Your task to perform on an android device: uninstall "Spotify: Music and Podcasts" Image 0: 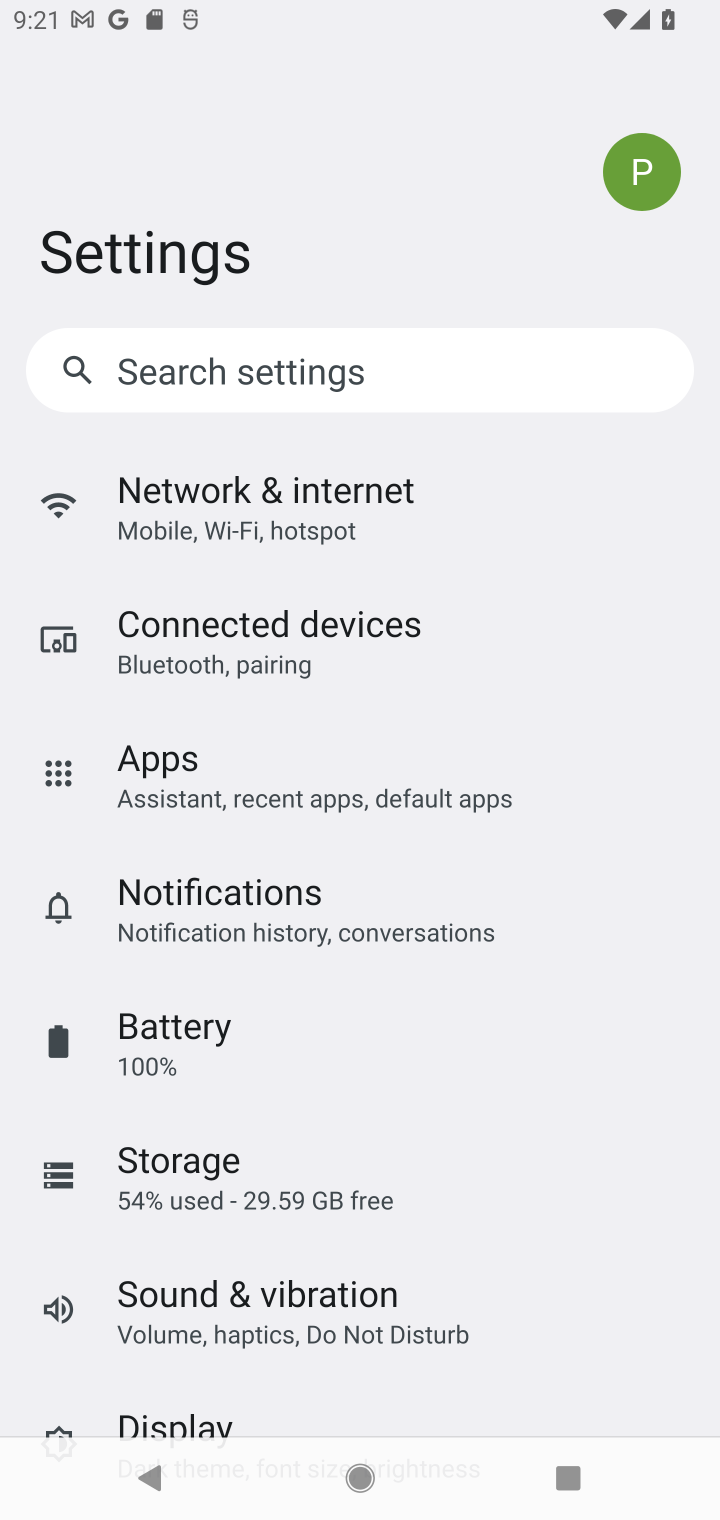
Step 0: press home button
Your task to perform on an android device: uninstall "Spotify: Music and Podcasts" Image 1: 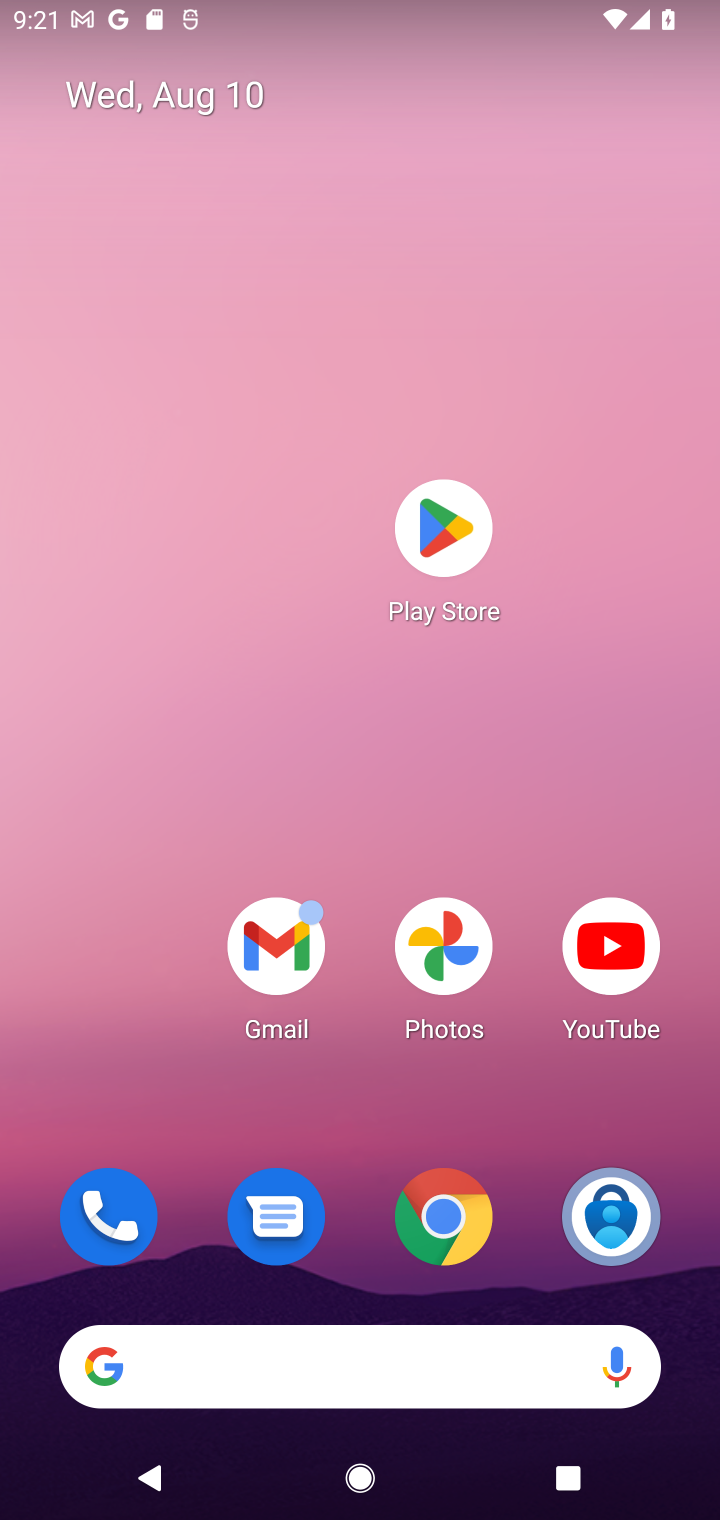
Step 1: click (437, 534)
Your task to perform on an android device: uninstall "Spotify: Music and Podcasts" Image 2: 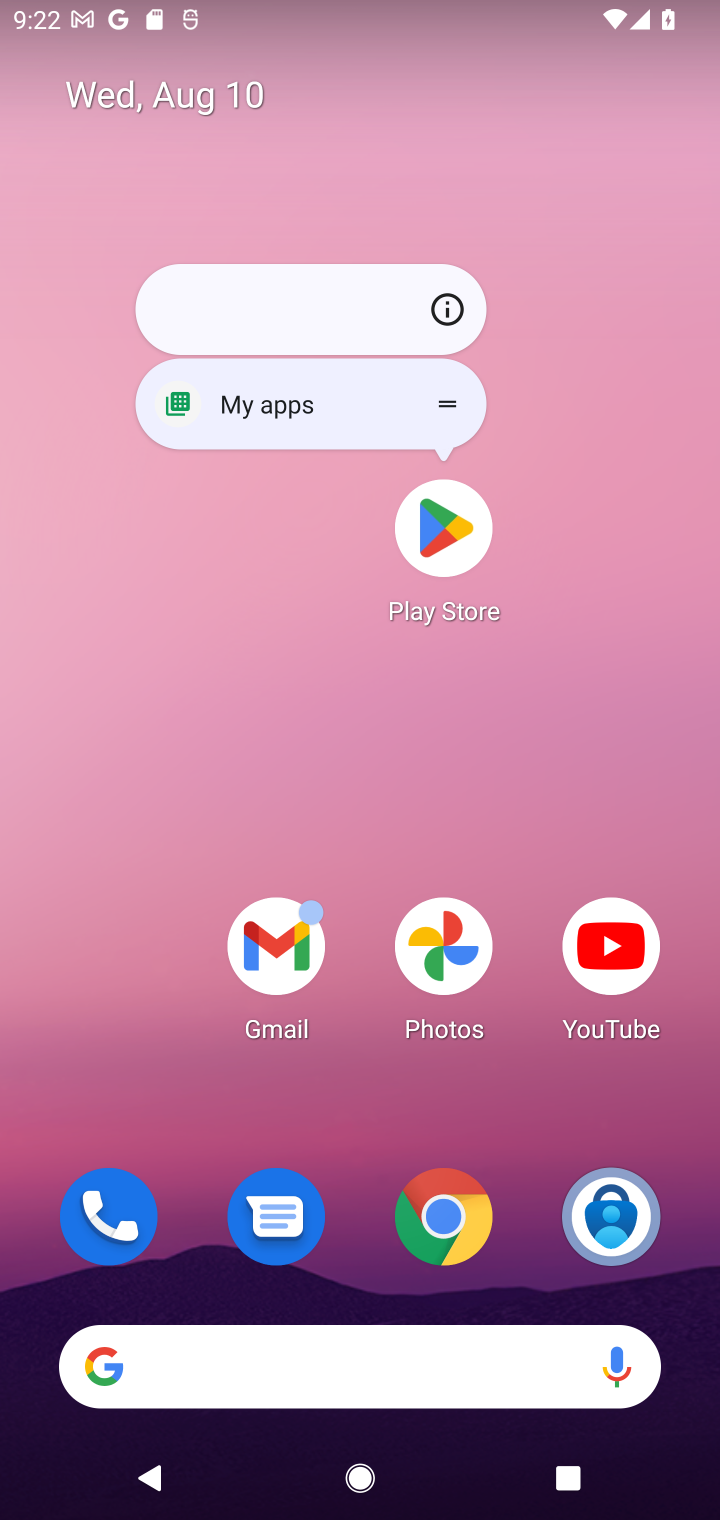
Step 2: click (437, 536)
Your task to perform on an android device: uninstall "Spotify: Music and Podcasts" Image 3: 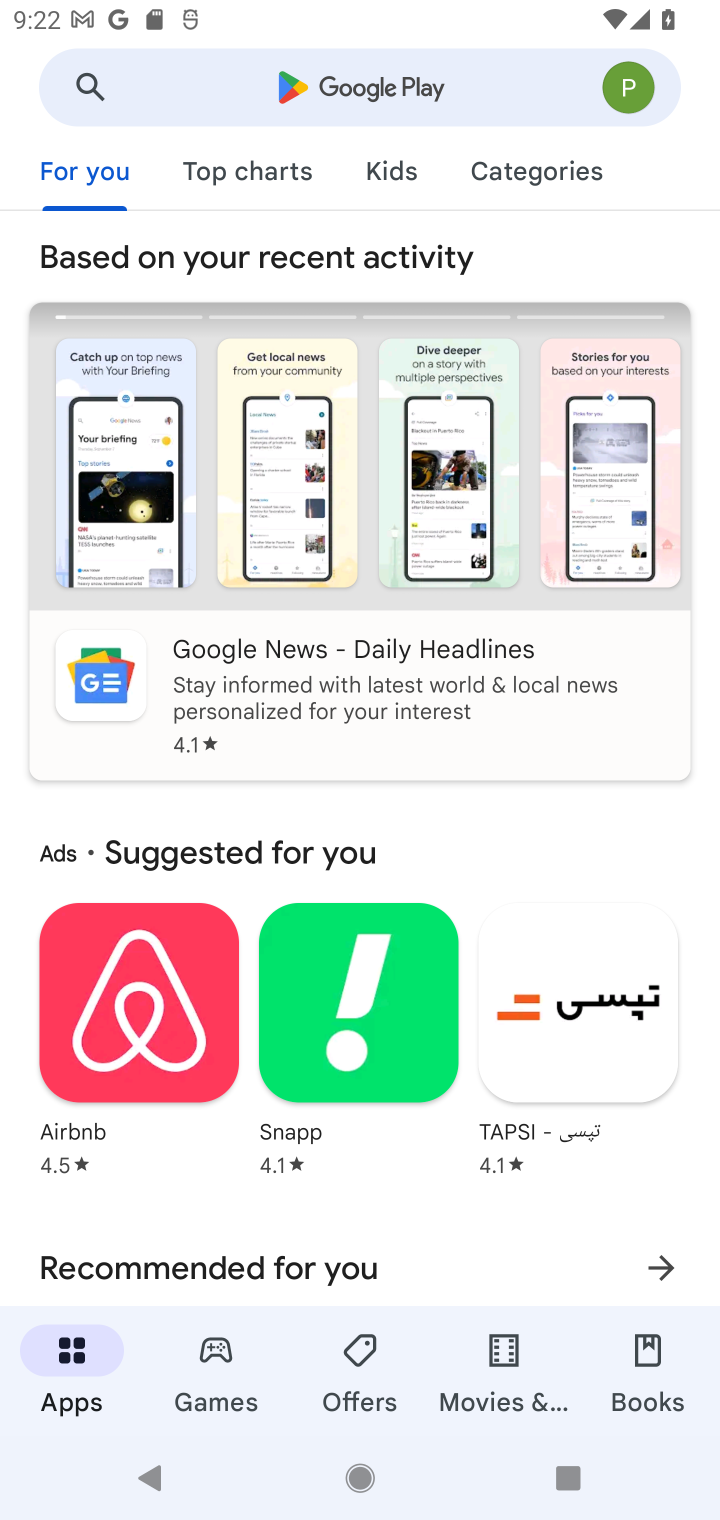
Step 3: click (486, 85)
Your task to perform on an android device: uninstall "Spotify: Music and Podcasts" Image 4: 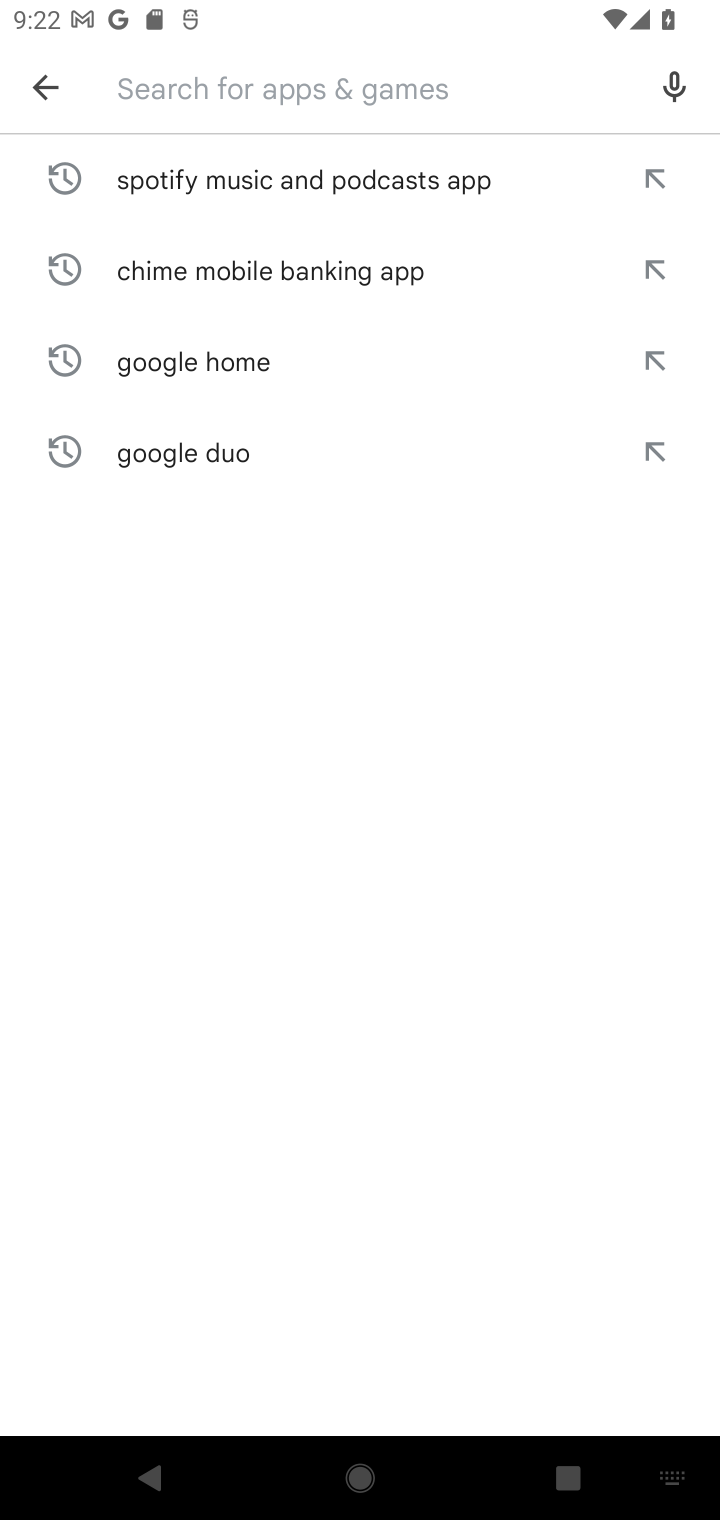
Step 4: type "Spotify: Music and Podcasts"
Your task to perform on an android device: uninstall "Spotify: Music and Podcasts" Image 5: 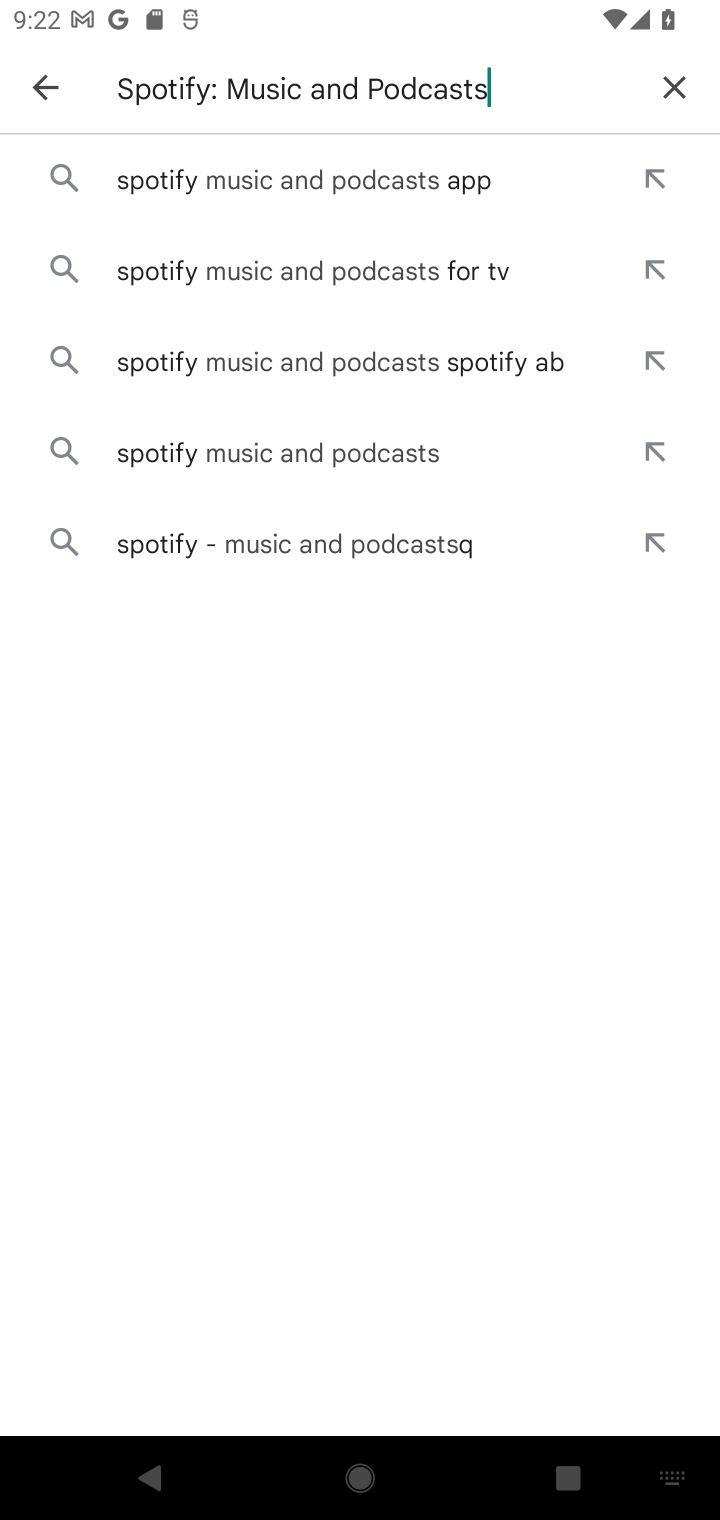
Step 5: click (426, 170)
Your task to perform on an android device: uninstall "Spotify: Music and Podcasts" Image 6: 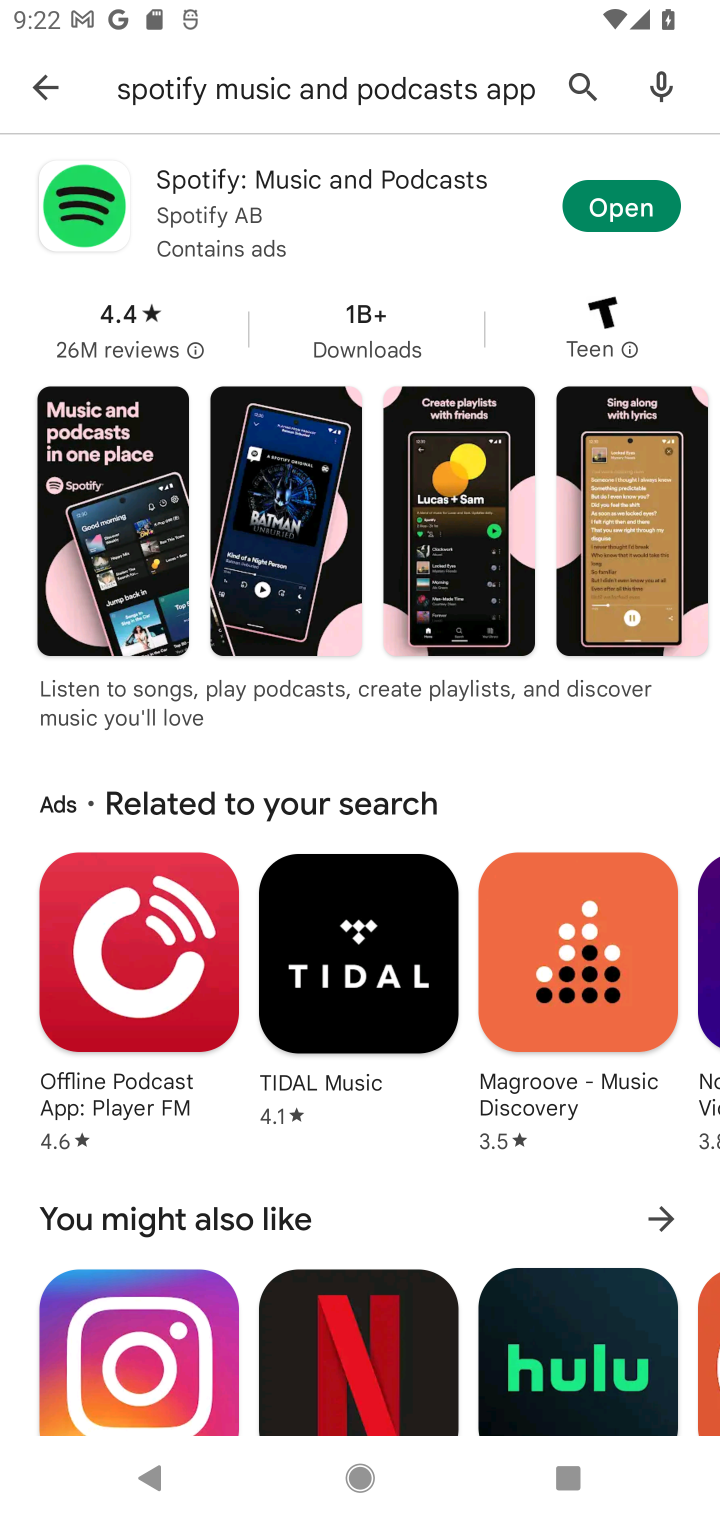
Step 6: click (215, 205)
Your task to perform on an android device: uninstall "Spotify: Music and Podcasts" Image 7: 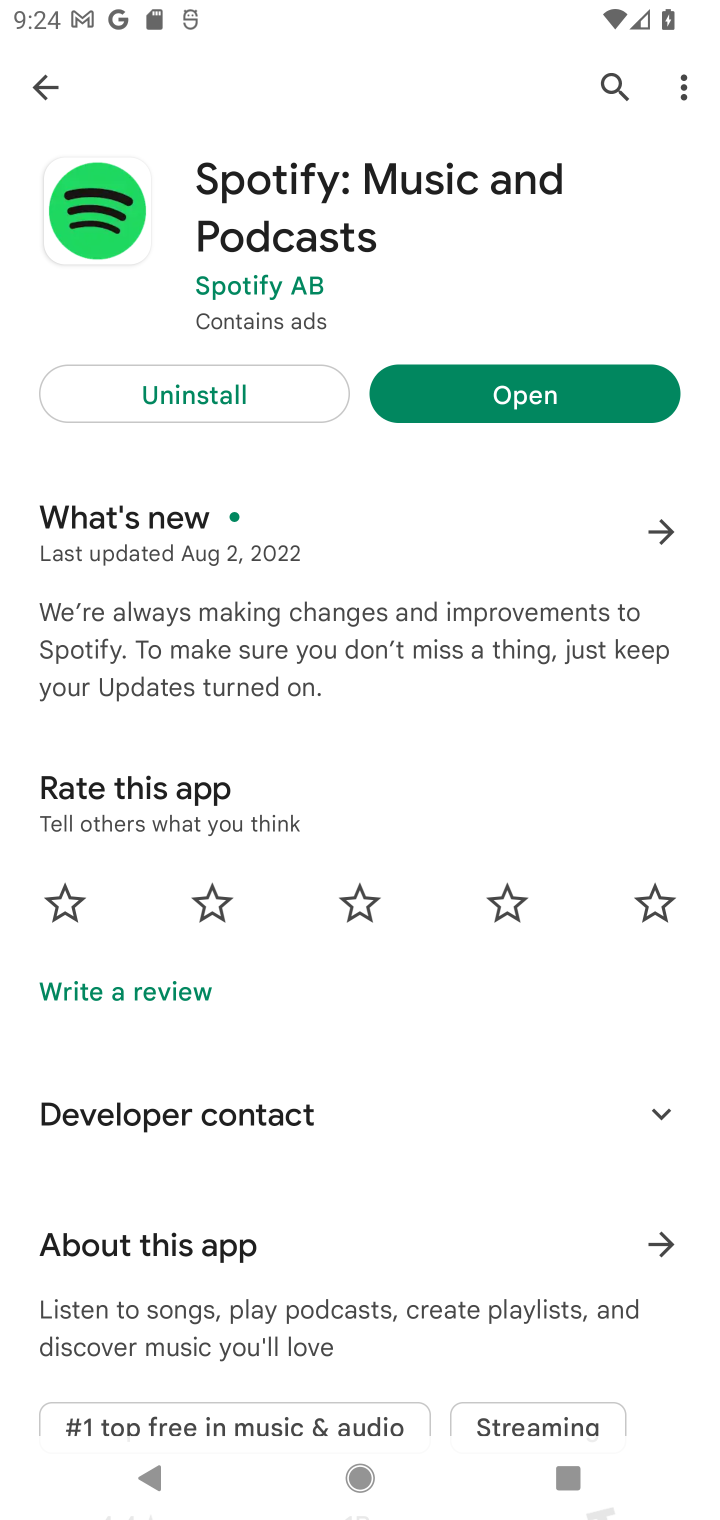
Step 7: click (220, 389)
Your task to perform on an android device: uninstall "Spotify: Music and Podcasts" Image 8: 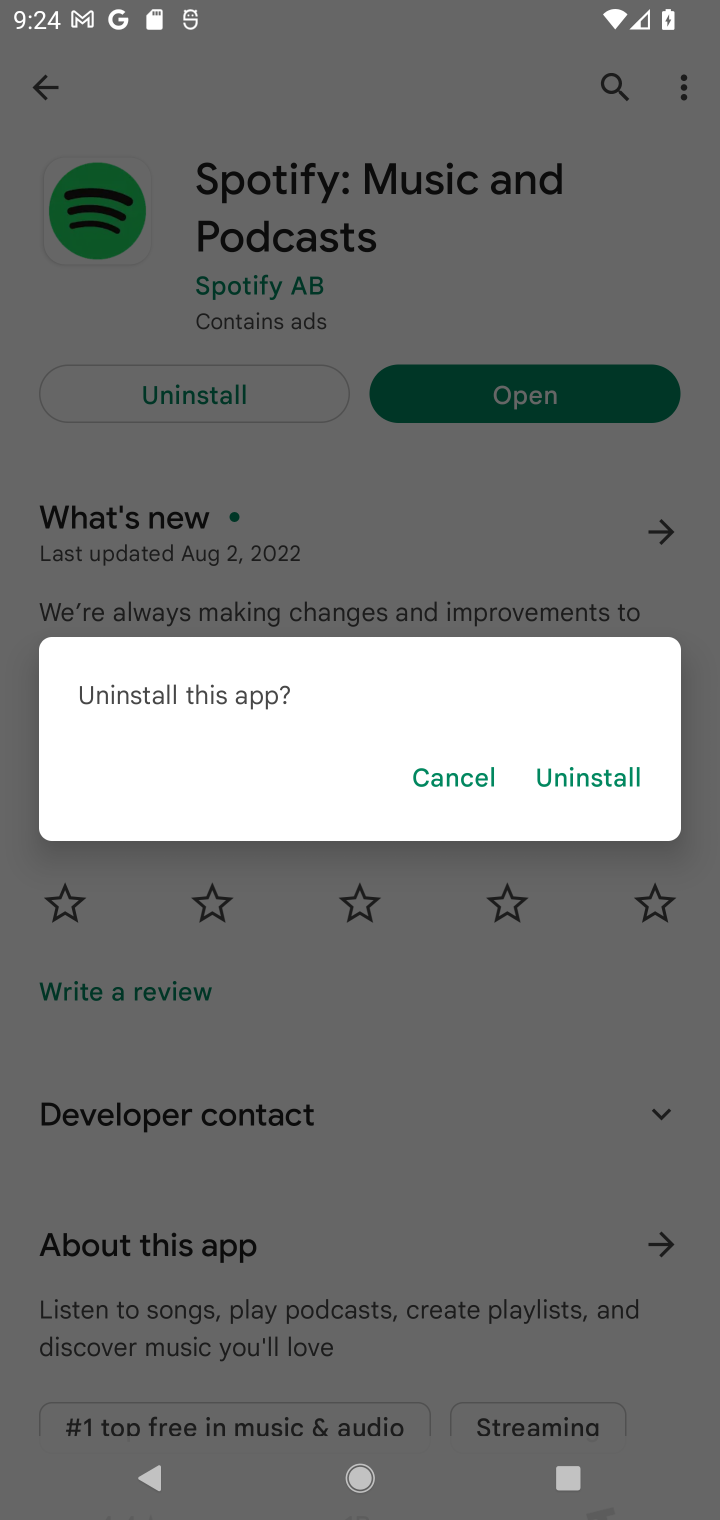
Step 8: click (569, 776)
Your task to perform on an android device: uninstall "Spotify: Music and Podcasts" Image 9: 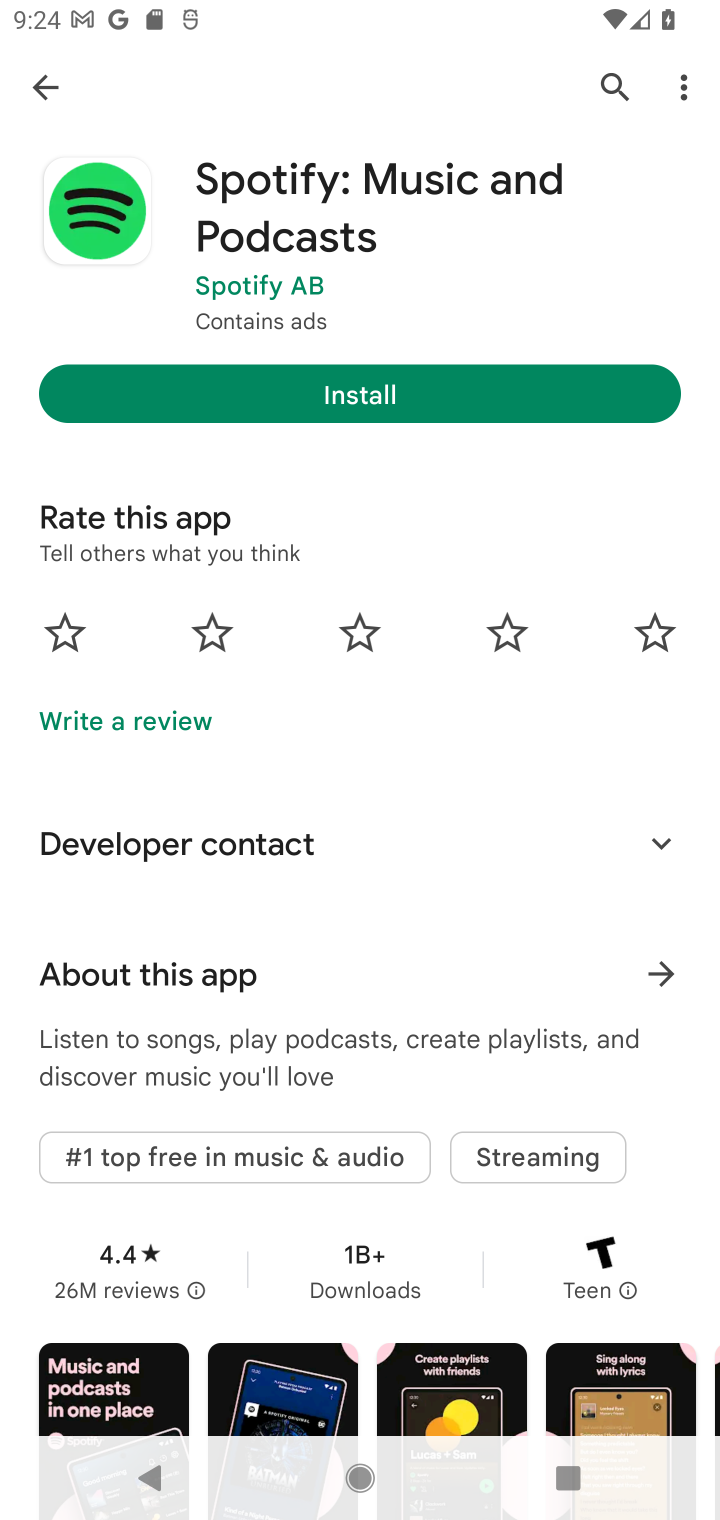
Step 9: task complete